Your task to perform on an android device: What's on my calendar today? Image 0: 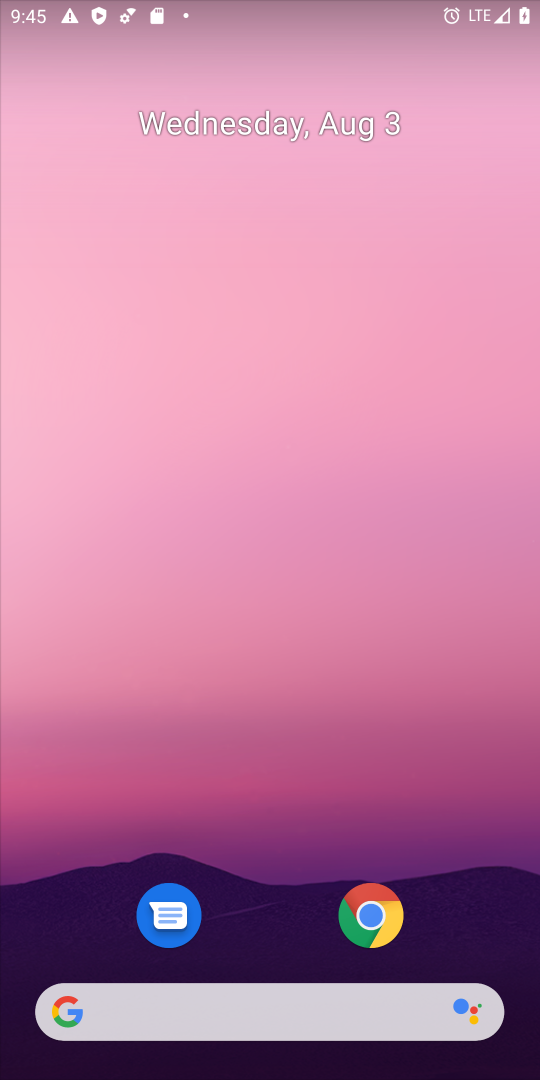
Step 0: drag from (258, 990) to (373, 215)
Your task to perform on an android device: What's on my calendar today? Image 1: 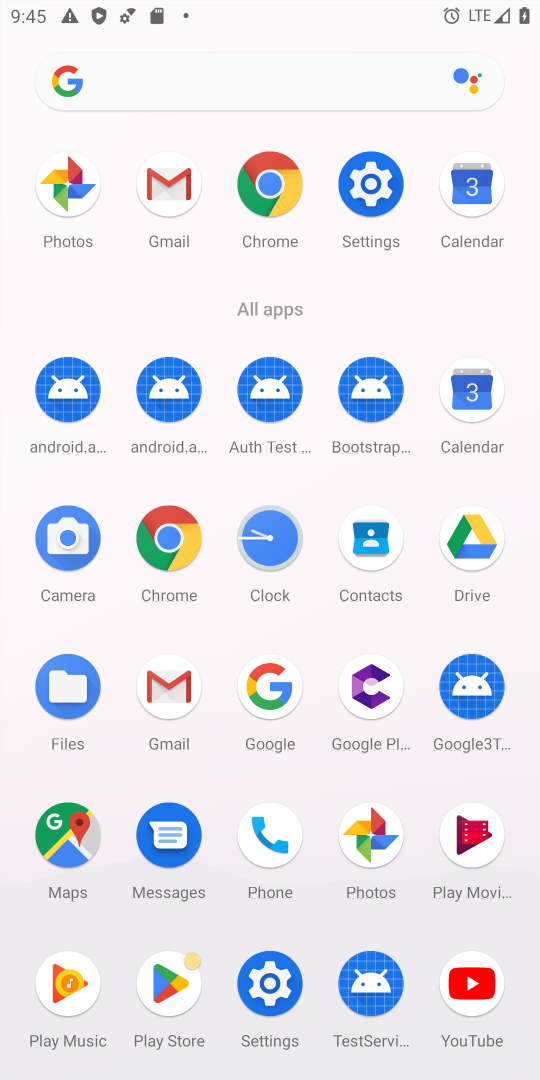
Step 1: click (458, 194)
Your task to perform on an android device: What's on my calendar today? Image 2: 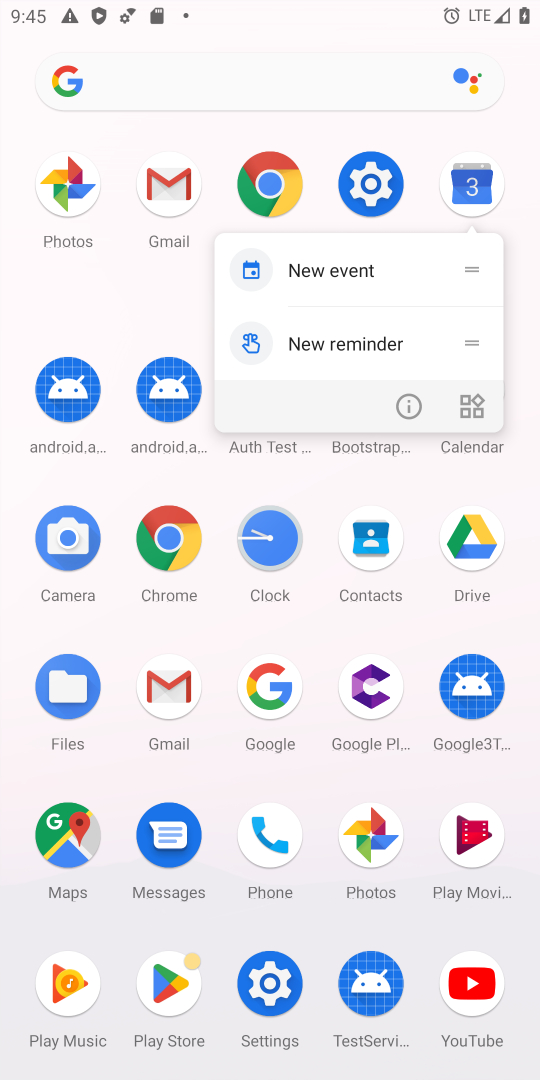
Step 2: click (468, 186)
Your task to perform on an android device: What's on my calendar today? Image 3: 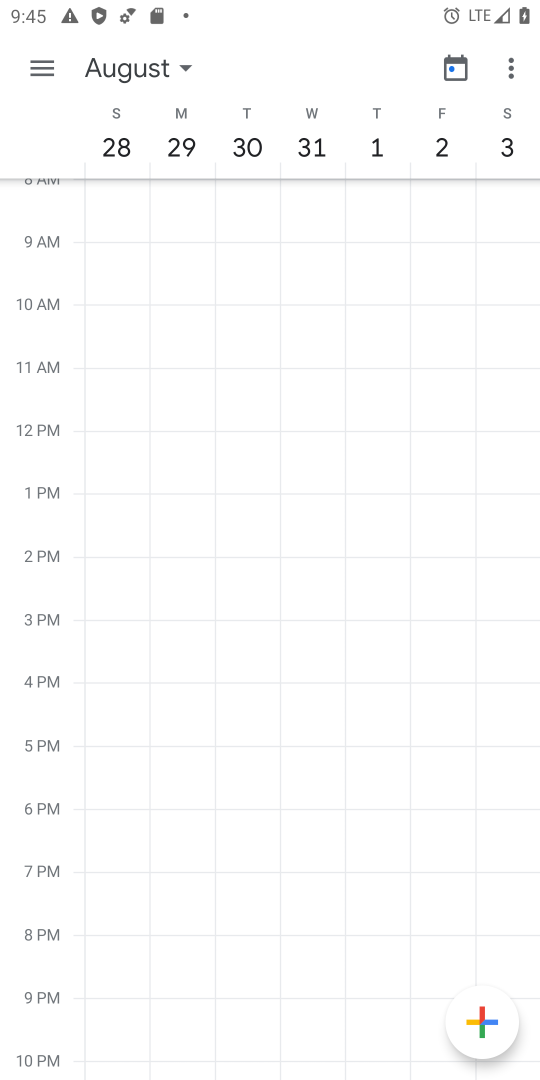
Step 3: click (101, 65)
Your task to perform on an android device: What's on my calendar today? Image 4: 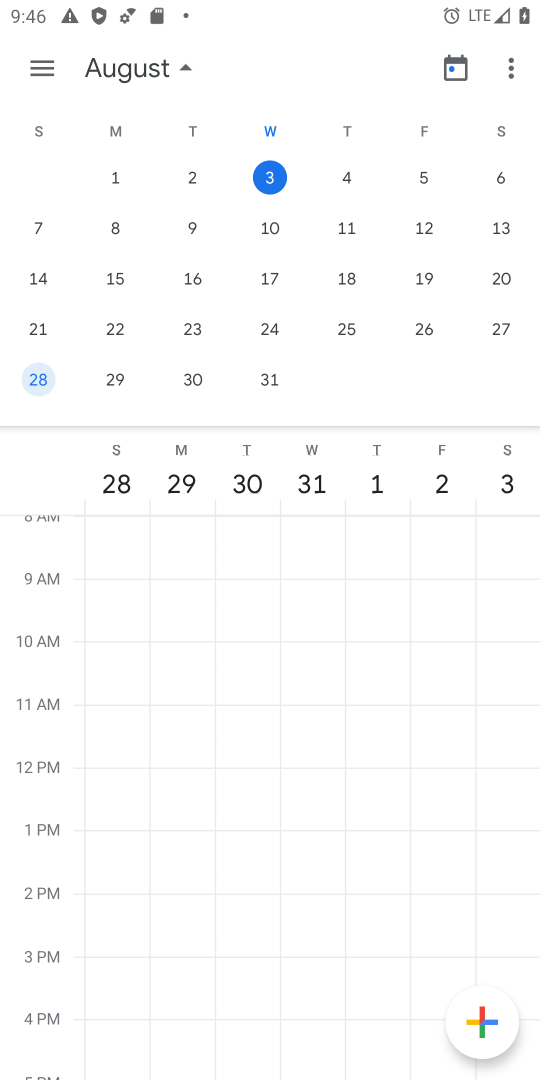
Step 4: click (344, 182)
Your task to perform on an android device: What's on my calendar today? Image 5: 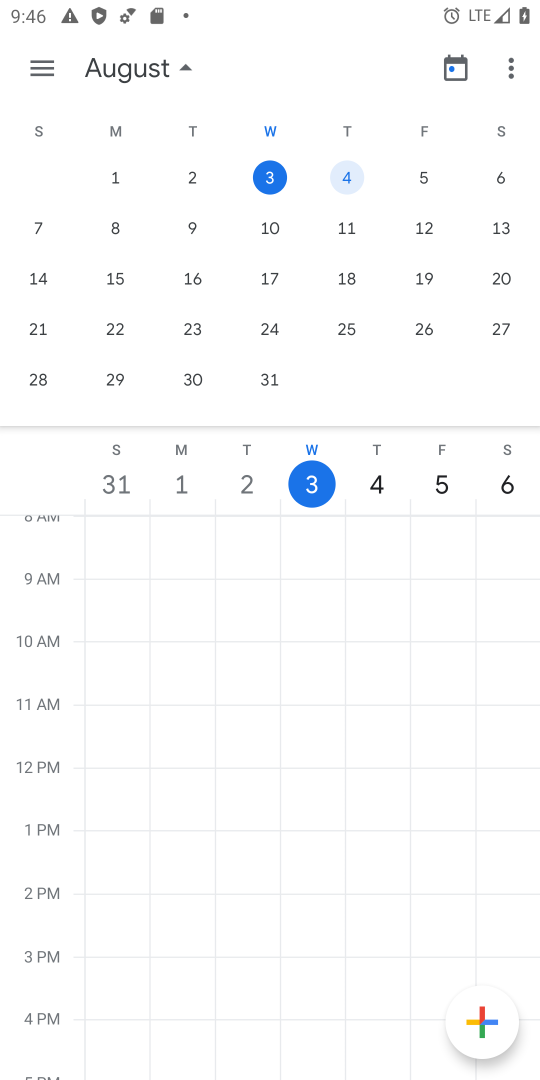
Step 5: click (278, 182)
Your task to perform on an android device: What's on my calendar today? Image 6: 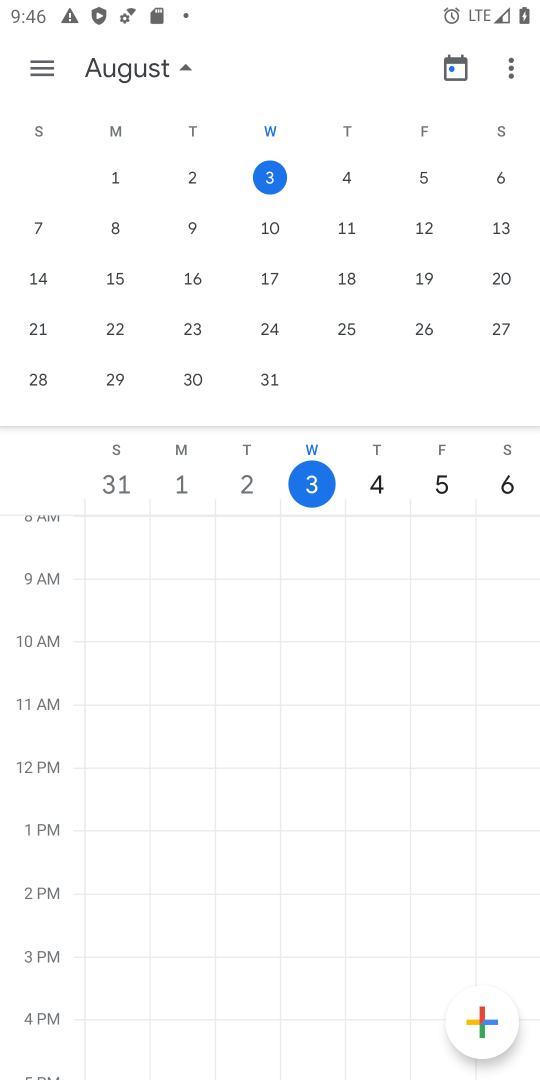
Step 6: click (270, 181)
Your task to perform on an android device: What's on my calendar today? Image 7: 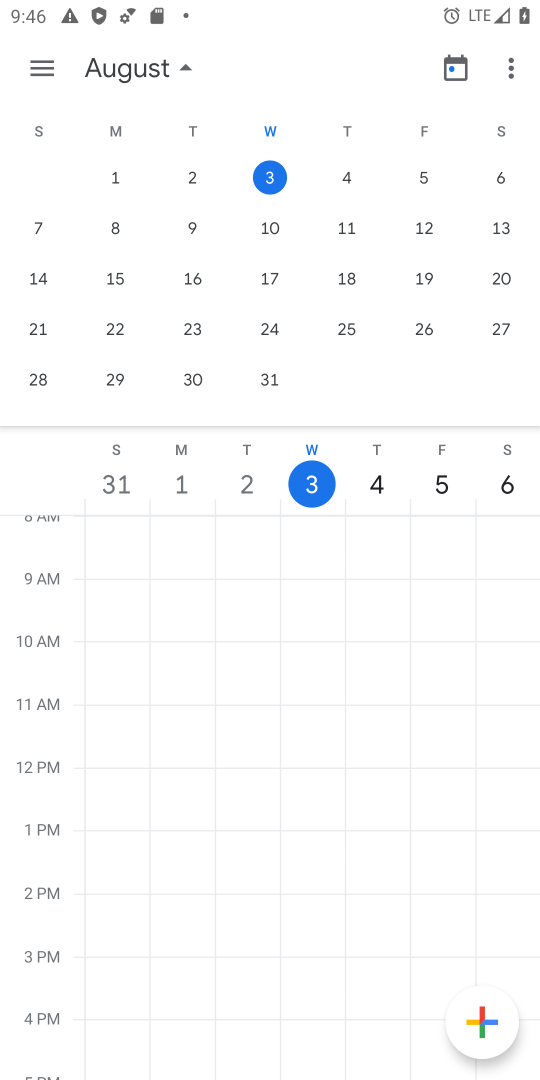
Step 7: task complete